Your task to perform on an android device: Open sound settings Image 0: 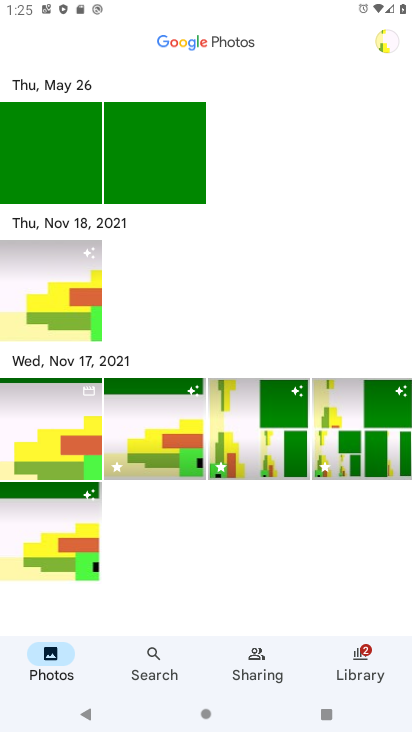
Step 0: drag from (175, 94) to (311, 259)
Your task to perform on an android device: Open sound settings Image 1: 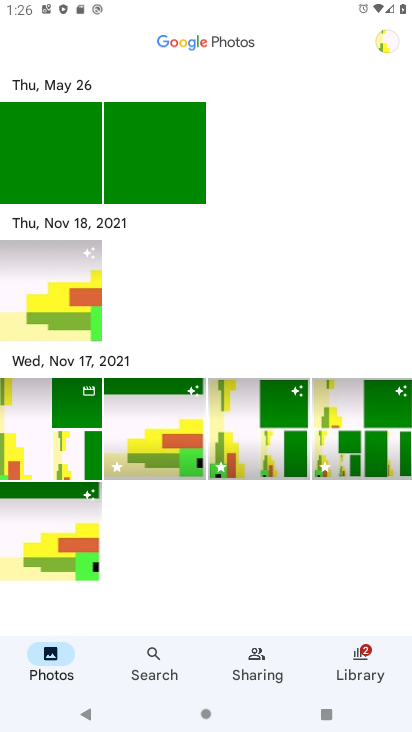
Step 1: press home button
Your task to perform on an android device: Open sound settings Image 2: 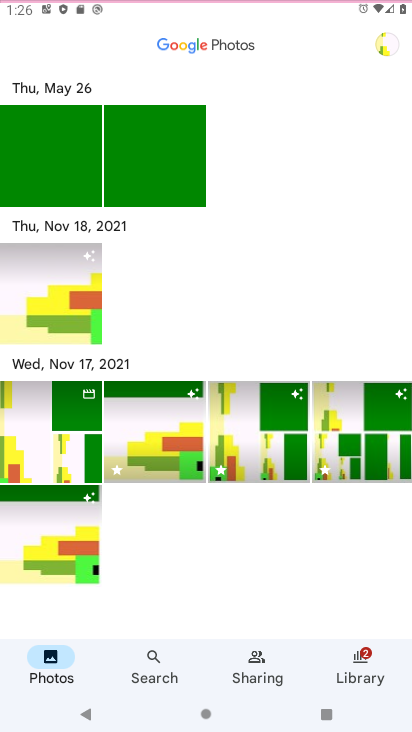
Step 2: drag from (311, 259) to (372, 677)
Your task to perform on an android device: Open sound settings Image 3: 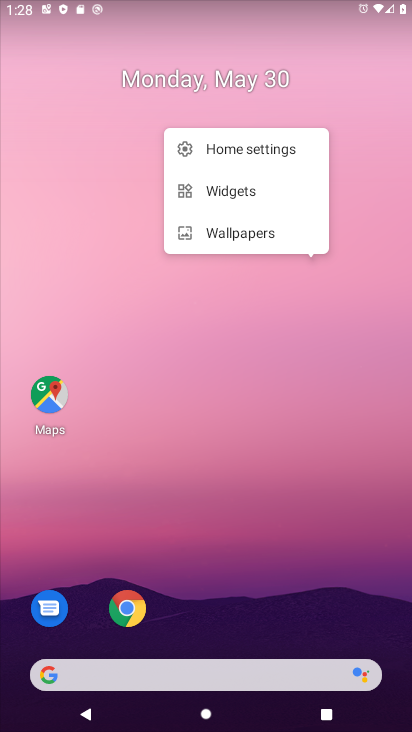
Step 3: click (204, 554)
Your task to perform on an android device: Open sound settings Image 4: 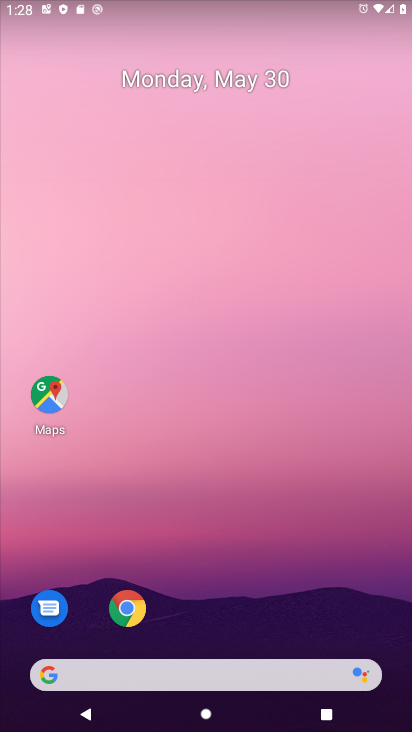
Step 4: drag from (263, 537) to (291, 23)
Your task to perform on an android device: Open sound settings Image 5: 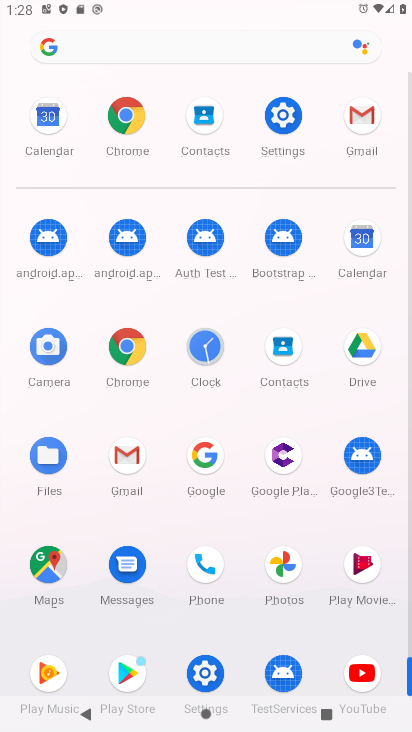
Step 5: click (281, 113)
Your task to perform on an android device: Open sound settings Image 6: 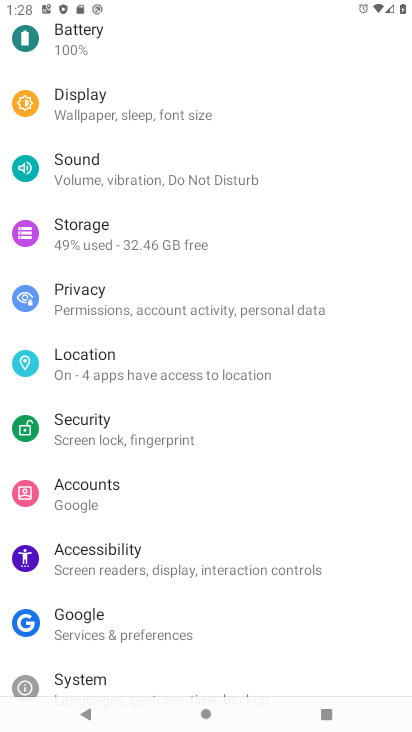
Step 6: click (93, 178)
Your task to perform on an android device: Open sound settings Image 7: 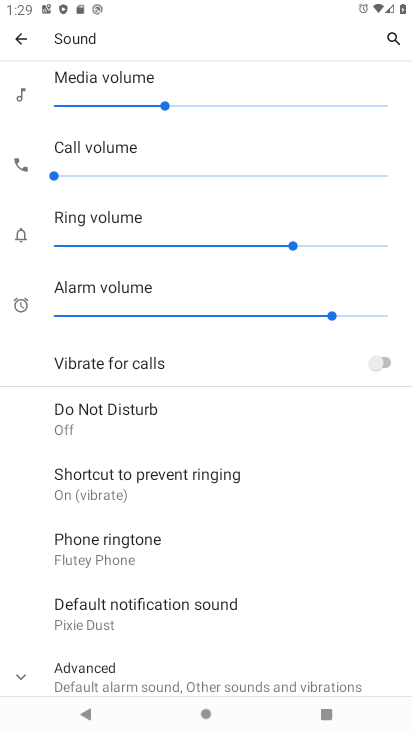
Step 7: task complete